Your task to perform on an android device: see sites visited before in the chrome app Image 0: 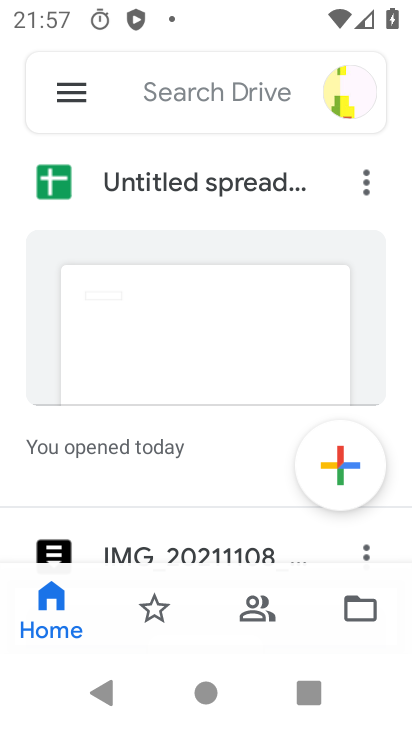
Step 0: press home button
Your task to perform on an android device: see sites visited before in the chrome app Image 1: 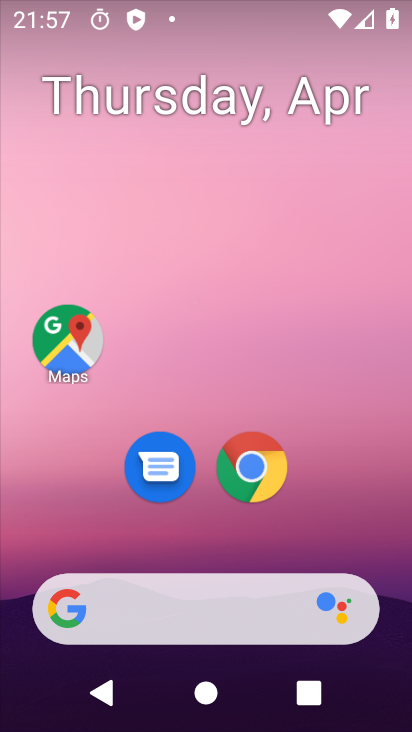
Step 1: drag from (228, 560) to (330, 5)
Your task to perform on an android device: see sites visited before in the chrome app Image 2: 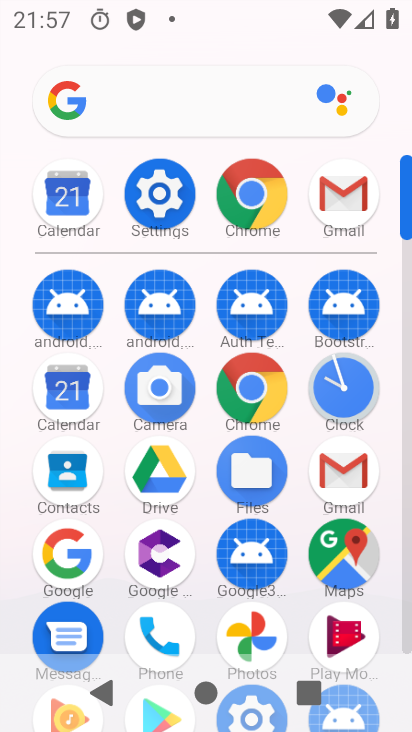
Step 2: click (243, 210)
Your task to perform on an android device: see sites visited before in the chrome app Image 3: 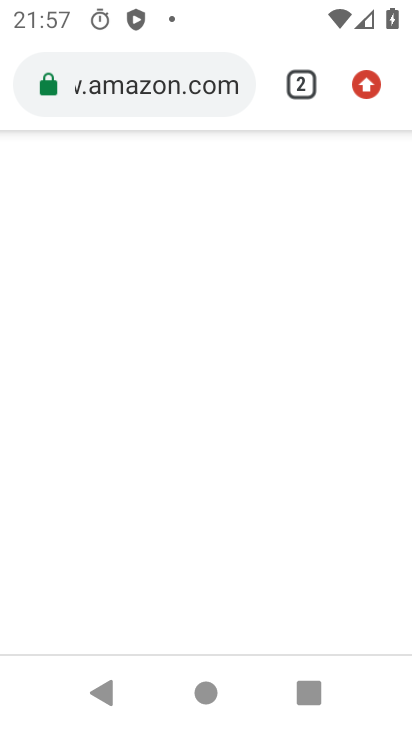
Step 3: click (298, 91)
Your task to perform on an android device: see sites visited before in the chrome app Image 4: 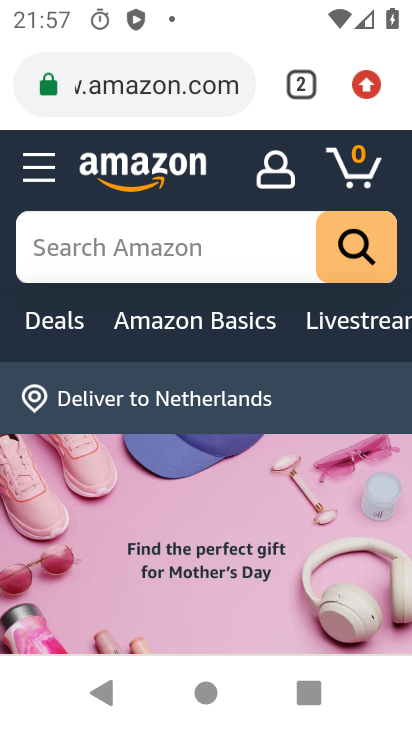
Step 4: click (290, 64)
Your task to perform on an android device: see sites visited before in the chrome app Image 5: 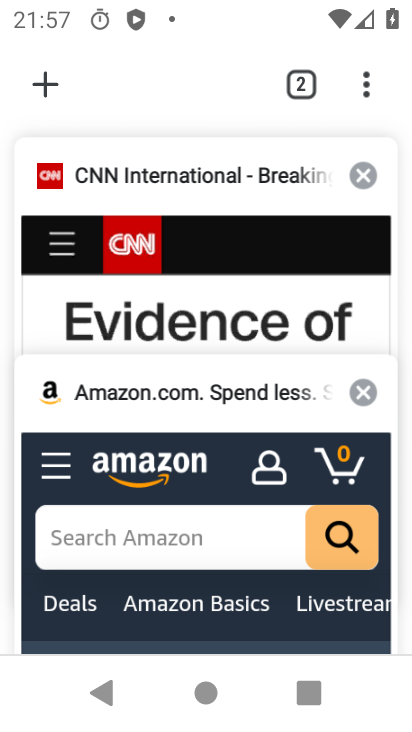
Step 5: task complete